Your task to perform on an android device: read, delete, or share a saved page in the chrome app Image 0: 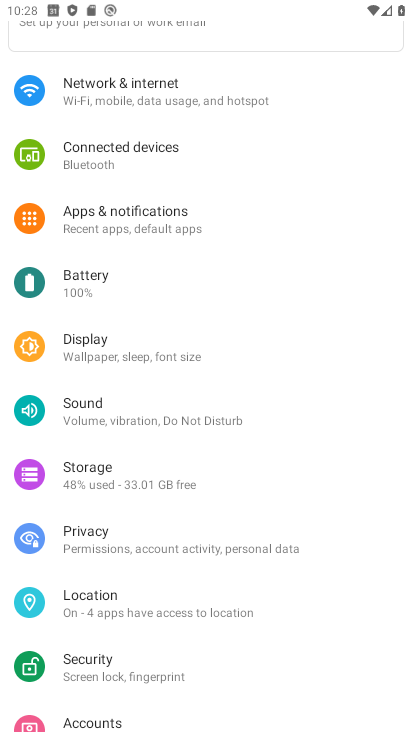
Step 0: press home button
Your task to perform on an android device: read, delete, or share a saved page in the chrome app Image 1: 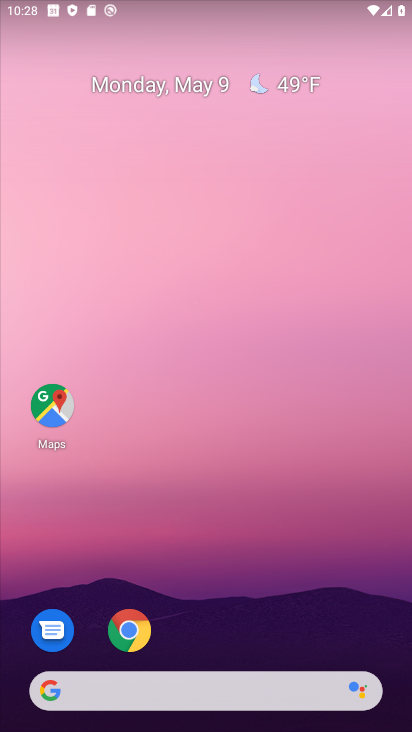
Step 1: click (131, 627)
Your task to perform on an android device: read, delete, or share a saved page in the chrome app Image 2: 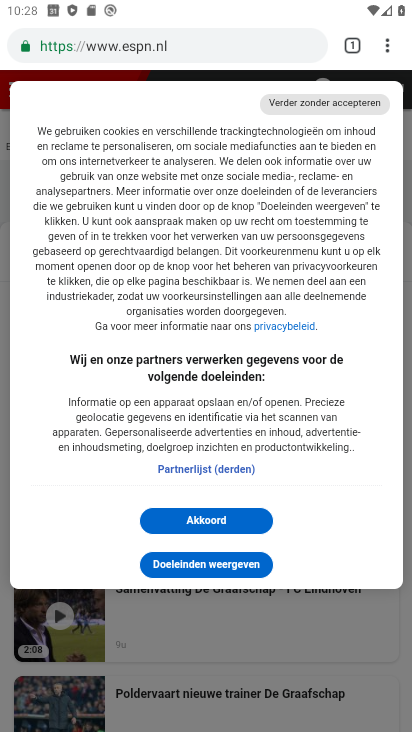
Step 2: click (240, 524)
Your task to perform on an android device: read, delete, or share a saved page in the chrome app Image 3: 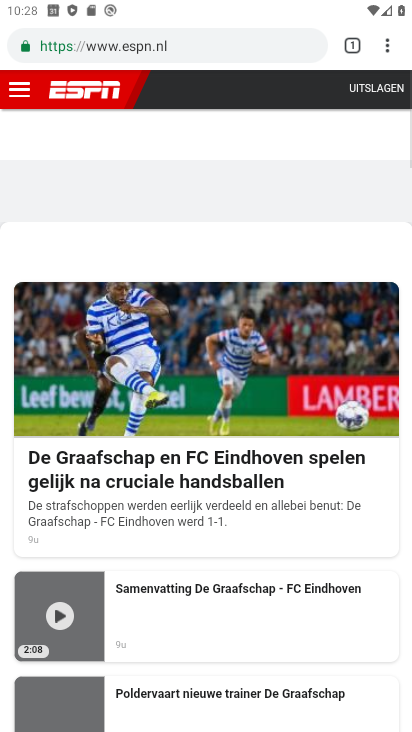
Step 3: drag from (388, 41) to (265, 282)
Your task to perform on an android device: read, delete, or share a saved page in the chrome app Image 4: 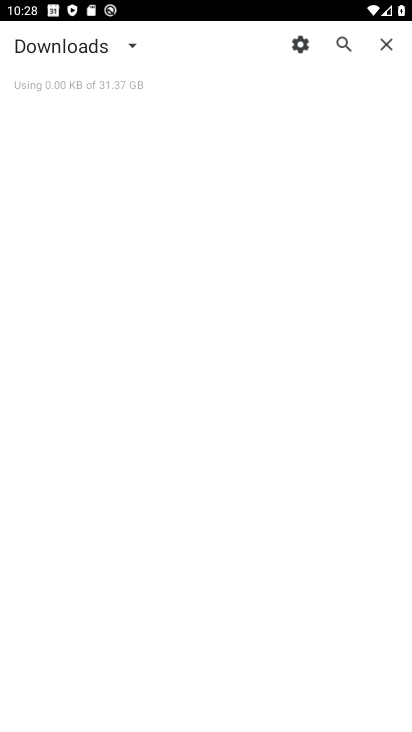
Step 4: click (123, 49)
Your task to perform on an android device: read, delete, or share a saved page in the chrome app Image 5: 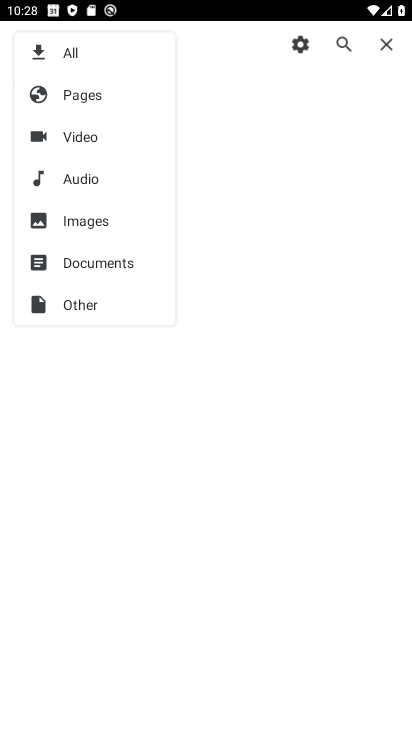
Step 5: click (82, 91)
Your task to perform on an android device: read, delete, or share a saved page in the chrome app Image 6: 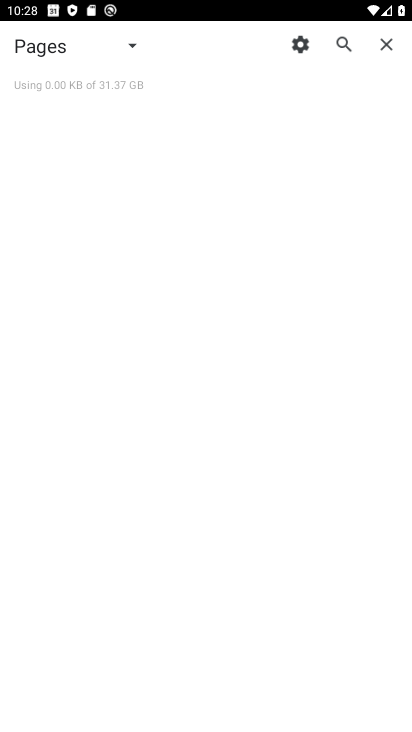
Step 6: task complete